Your task to perform on an android device: turn off notifications in google photos Image 0: 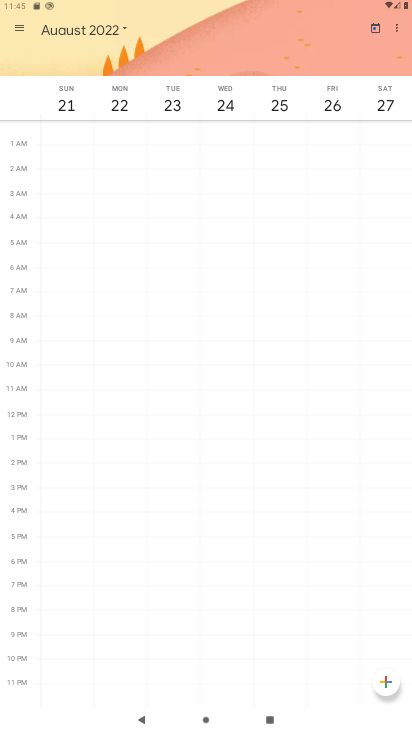
Step 0: press home button
Your task to perform on an android device: turn off notifications in google photos Image 1: 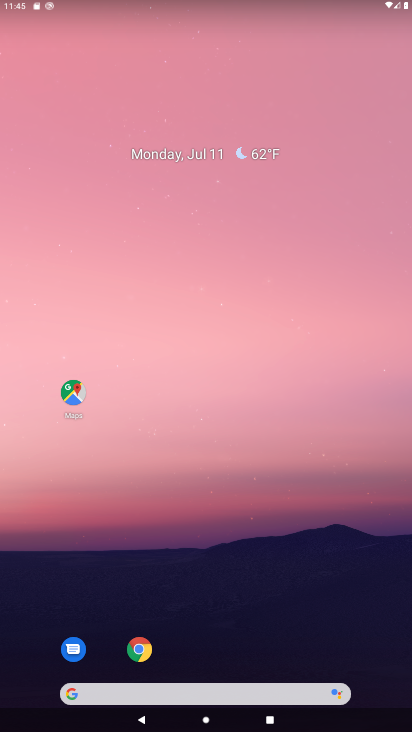
Step 1: drag from (266, 603) to (219, 204)
Your task to perform on an android device: turn off notifications in google photos Image 2: 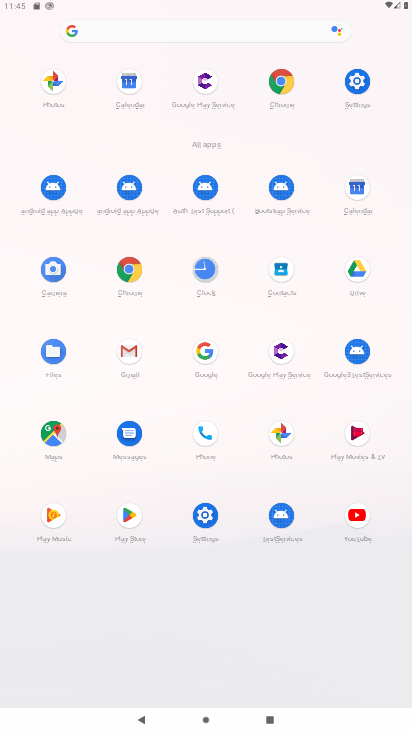
Step 2: click (48, 77)
Your task to perform on an android device: turn off notifications in google photos Image 3: 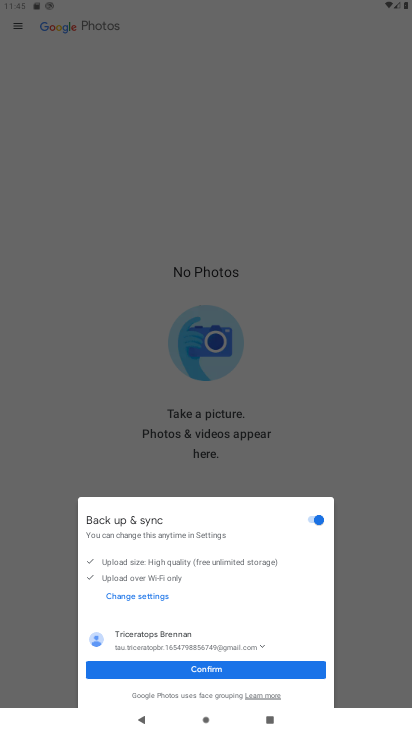
Step 3: click (205, 668)
Your task to perform on an android device: turn off notifications in google photos Image 4: 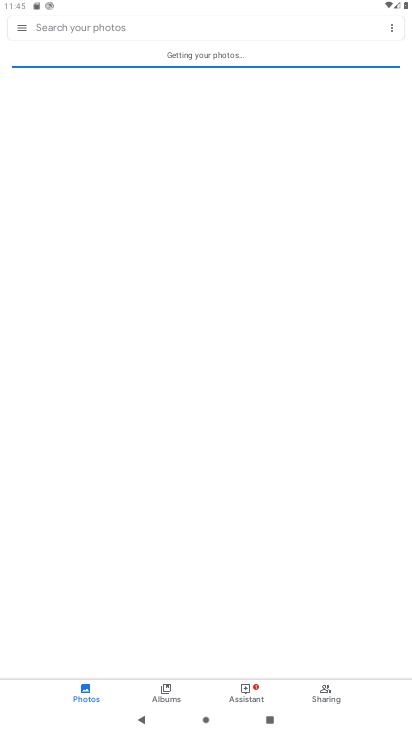
Step 4: click (20, 29)
Your task to perform on an android device: turn off notifications in google photos Image 5: 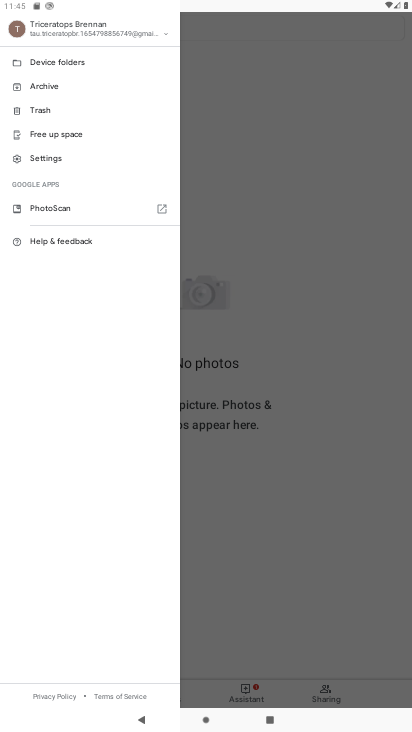
Step 5: click (40, 158)
Your task to perform on an android device: turn off notifications in google photos Image 6: 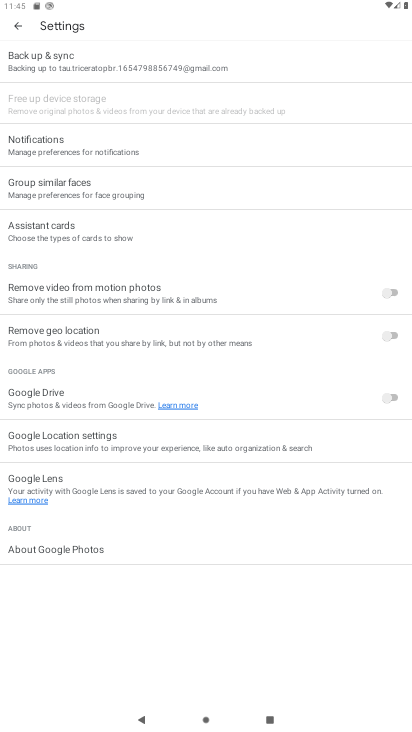
Step 6: click (40, 145)
Your task to perform on an android device: turn off notifications in google photos Image 7: 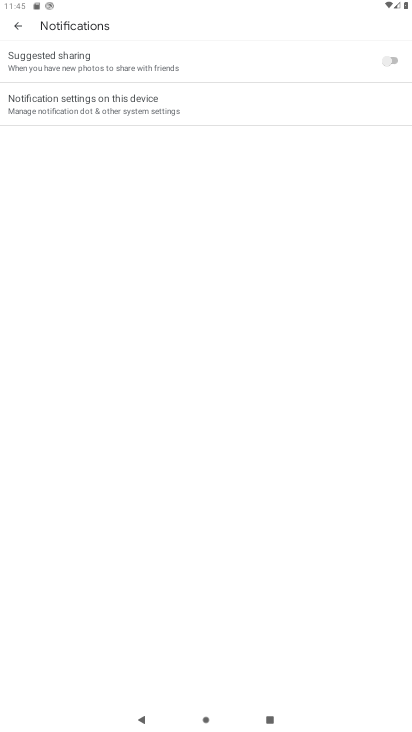
Step 7: click (110, 90)
Your task to perform on an android device: turn off notifications in google photos Image 8: 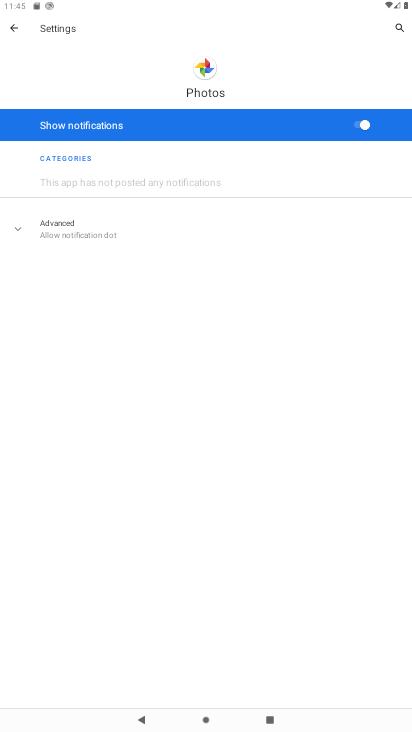
Step 8: click (367, 128)
Your task to perform on an android device: turn off notifications in google photos Image 9: 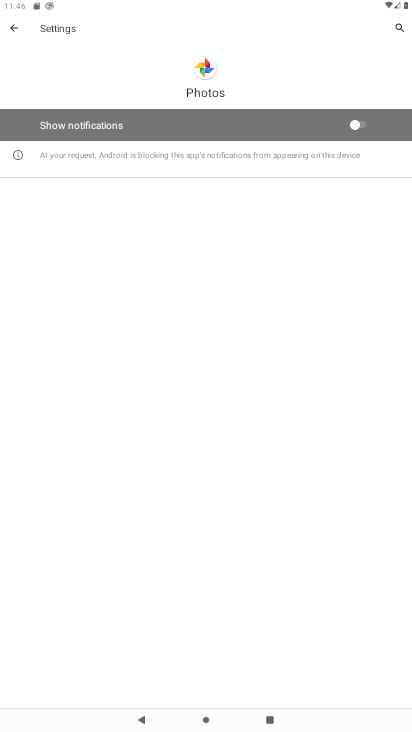
Step 9: task complete